Your task to perform on an android device: Go to notification settings Image 0: 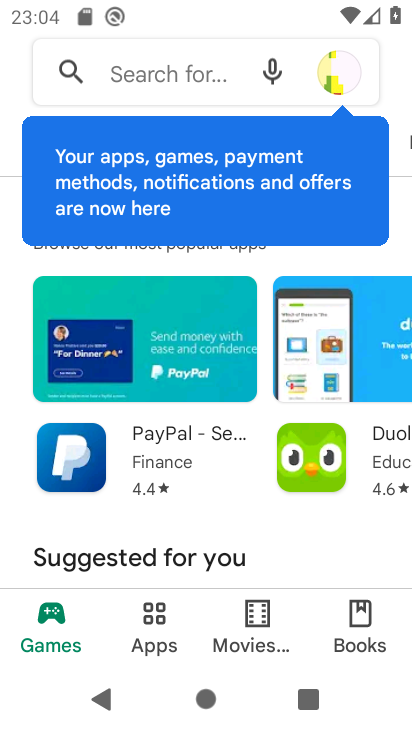
Step 0: press home button
Your task to perform on an android device: Go to notification settings Image 1: 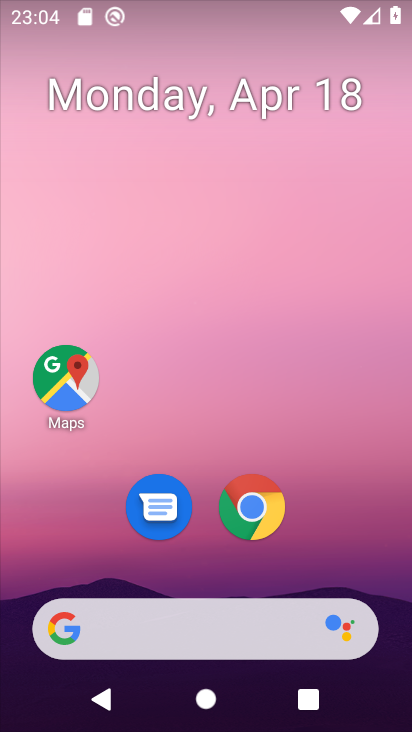
Step 1: drag from (350, 498) to (336, 99)
Your task to perform on an android device: Go to notification settings Image 2: 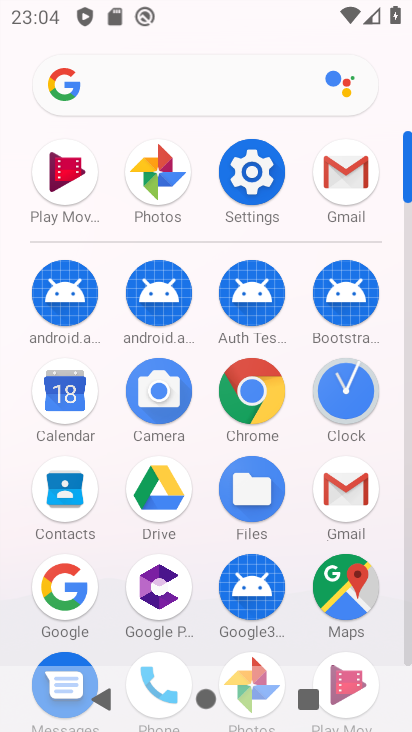
Step 2: click (252, 176)
Your task to perform on an android device: Go to notification settings Image 3: 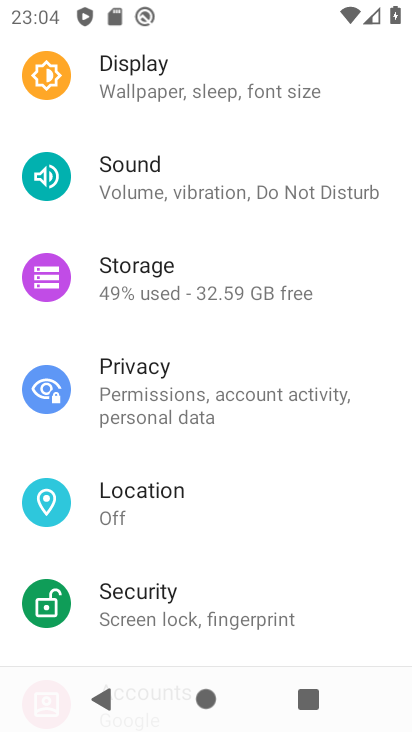
Step 3: drag from (254, 158) to (231, 617)
Your task to perform on an android device: Go to notification settings Image 4: 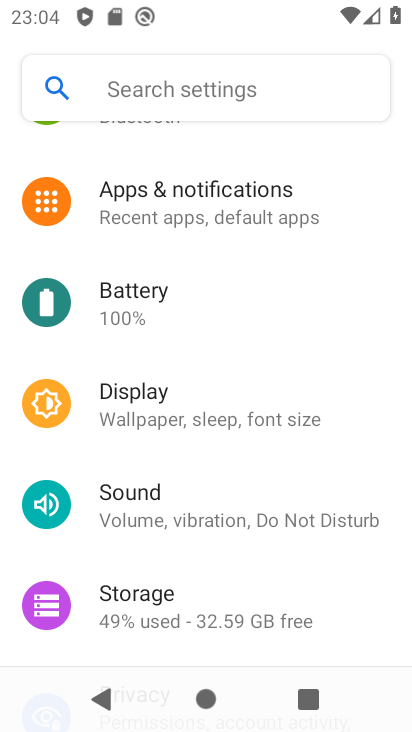
Step 4: click (268, 207)
Your task to perform on an android device: Go to notification settings Image 5: 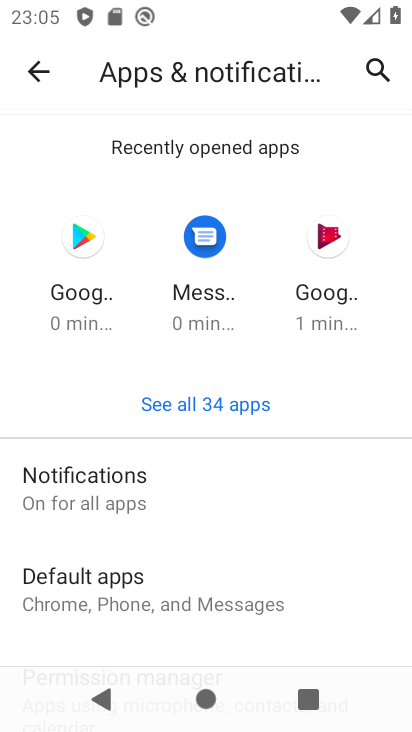
Step 5: task complete